Your task to perform on an android device: change the upload size in google photos Image 0: 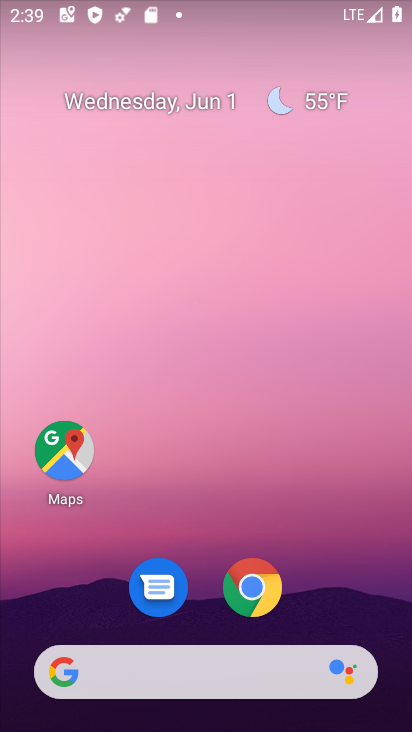
Step 0: drag from (209, 660) to (236, 135)
Your task to perform on an android device: change the upload size in google photos Image 1: 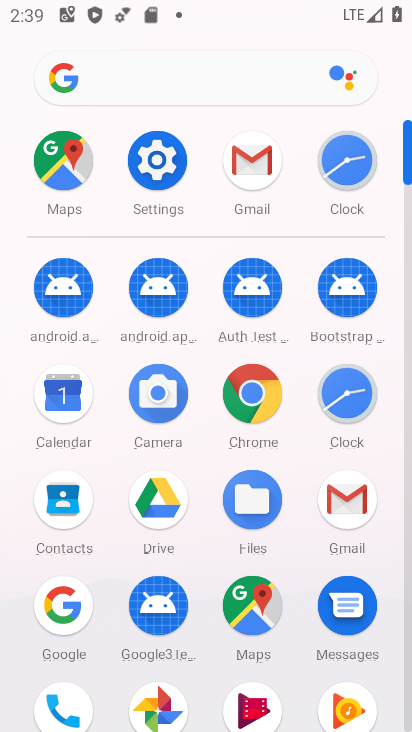
Step 1: click (155, 702)
Your task to perform on an android device: change the upload size in google photos Image 2: 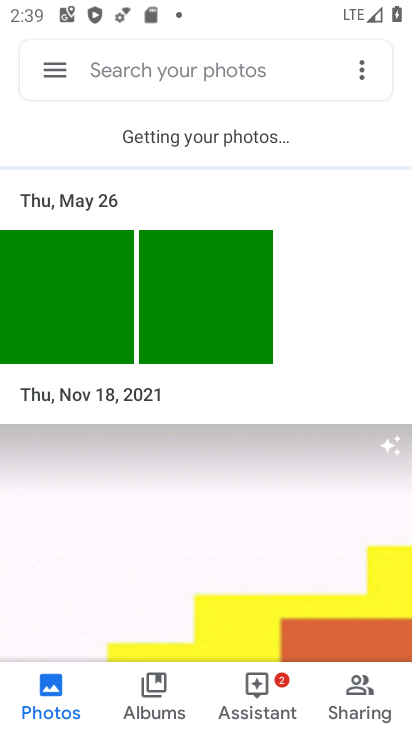
Step 2: click (47, 70)
Your task to perform on an android device: change the upload size in google photos Image 3: 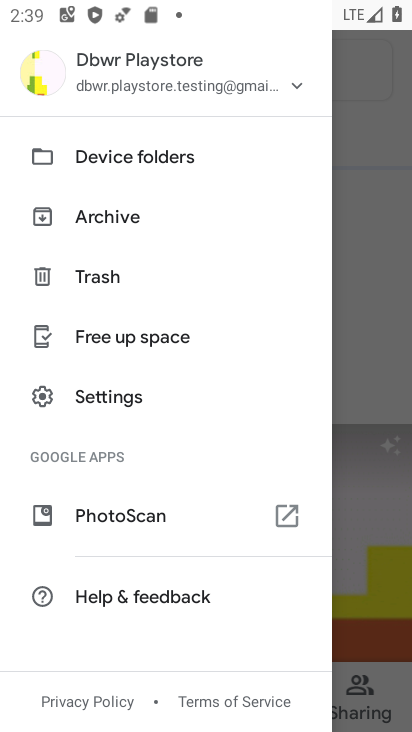
Step 3: click (109, 396)
Your task to perform on an android device: change the upload size in google photos Image 4: 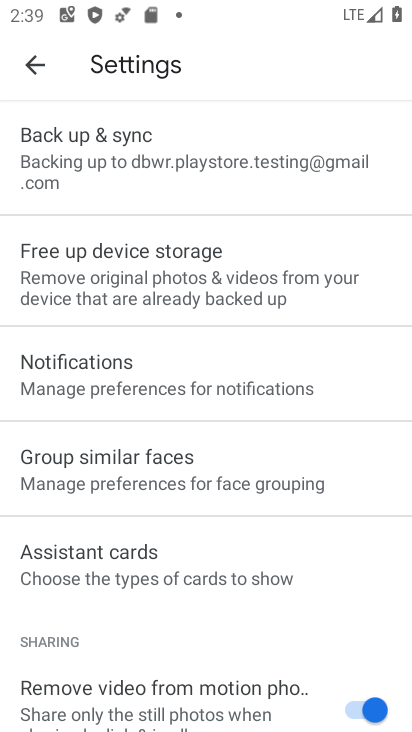
Step 4: click (174, 190)
Your task to perform on an android device: change the upload size in google photos Image 5: 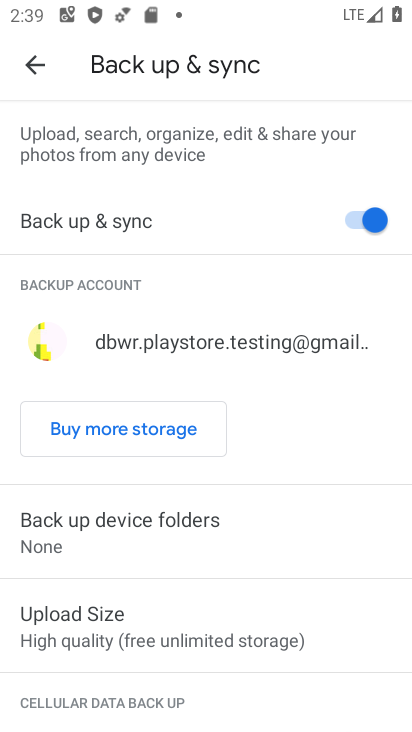
Step 5: click (179, 625)
Your task to perform on an android device: change the upload size in google photos Image 6: 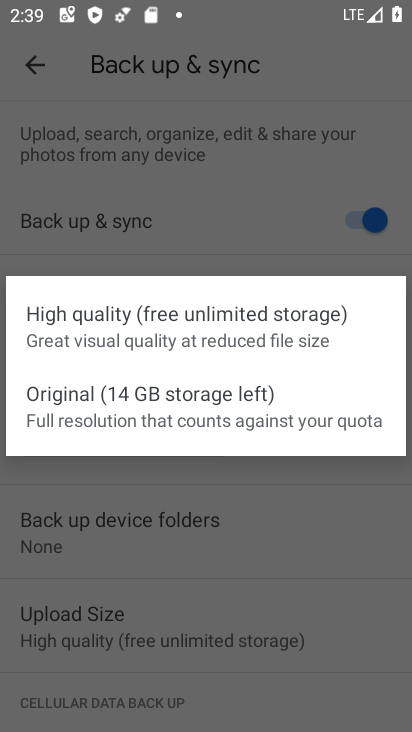
Step 6: click (175, 406)
Your task to perform on an android device: change the upload size in google photos Image 7: 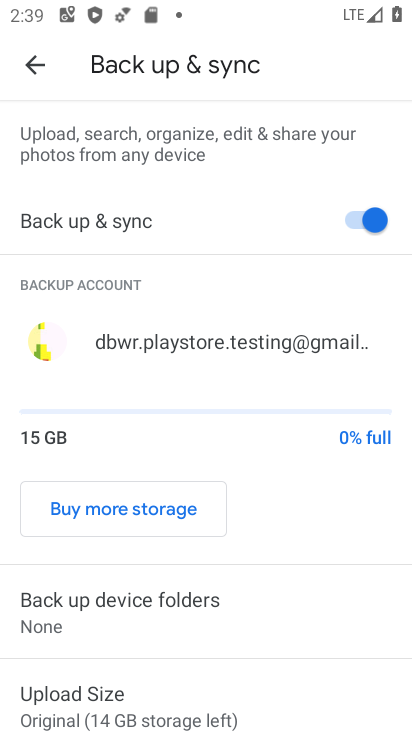
Step 7: task complete